Your task to perform on an android device: Is it going to rain today? Image 0: 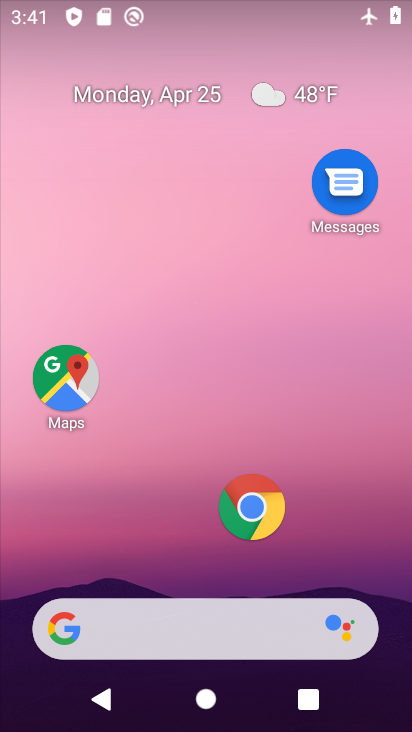
Step 0: drag from (115, 597) to (171, 113)
Your task to perform on an android device: Is it going to rain today? Image 1: 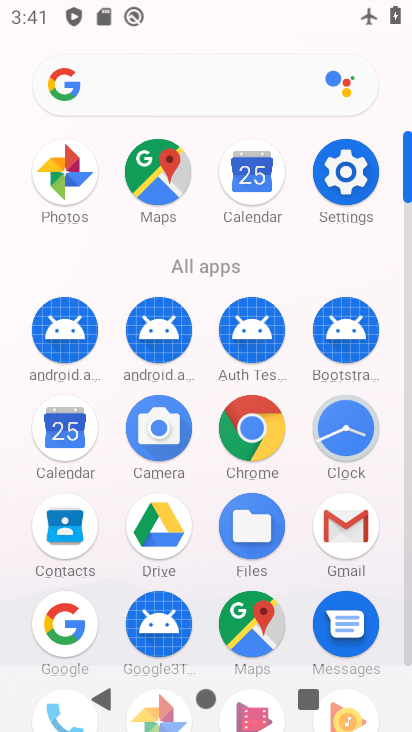
Step 1: drag from (188, 658) to (227, 306)
Your task to perform on an android device: Is it going to rain today? Image 2: 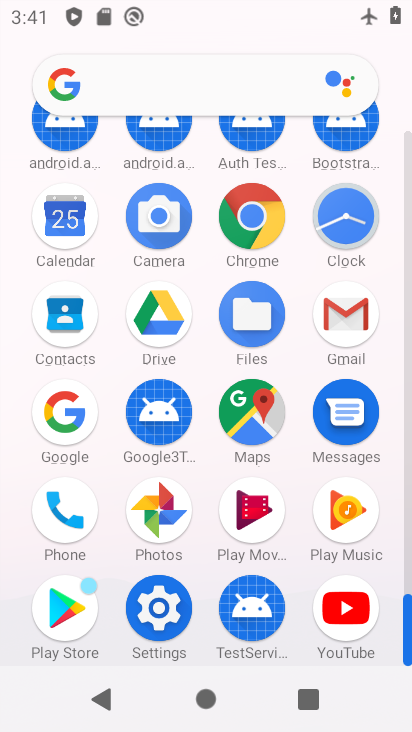
Step 2: click (83, 432)
Your task to perform on an android device: Is it going to rain today? Image 3: 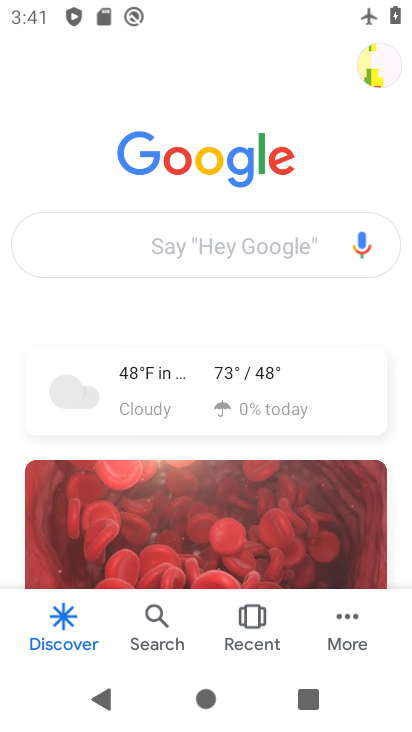
Step 3: click (196, 381)
Your task to perform on an android device: Is it going to rain today? Image 4: 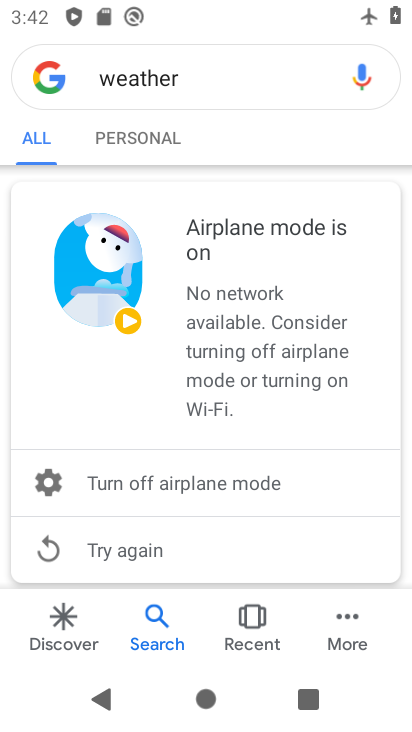
Step 4: click (135, 552)
Your task to perform on an android device: Is it going to rain today? Image 5: 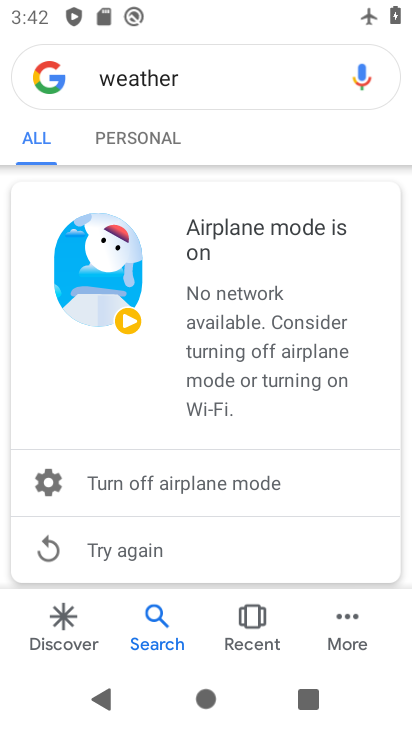
Step 5: task complete